Your task to perform on an android device: Empty the shopping cart on target.com. Add "macbook pro 13 inch" to the cart on target.com, then select checkout. Image 0: 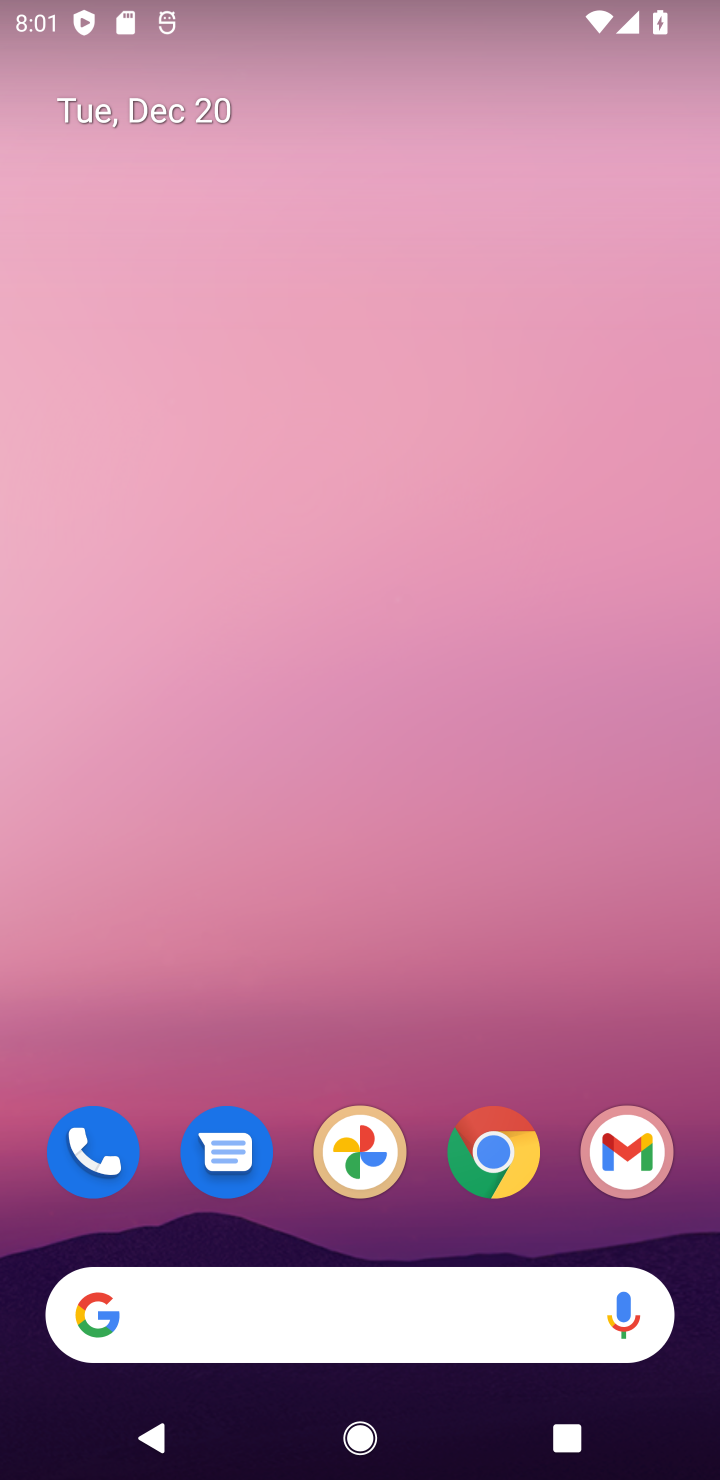
Step 0: click (488, 1119)
Your task to perform on an android device: Empty the shopping cart on target.com. Add "macbook pro 13 inch" to the cart on target.com, then select checkout. Image 1: 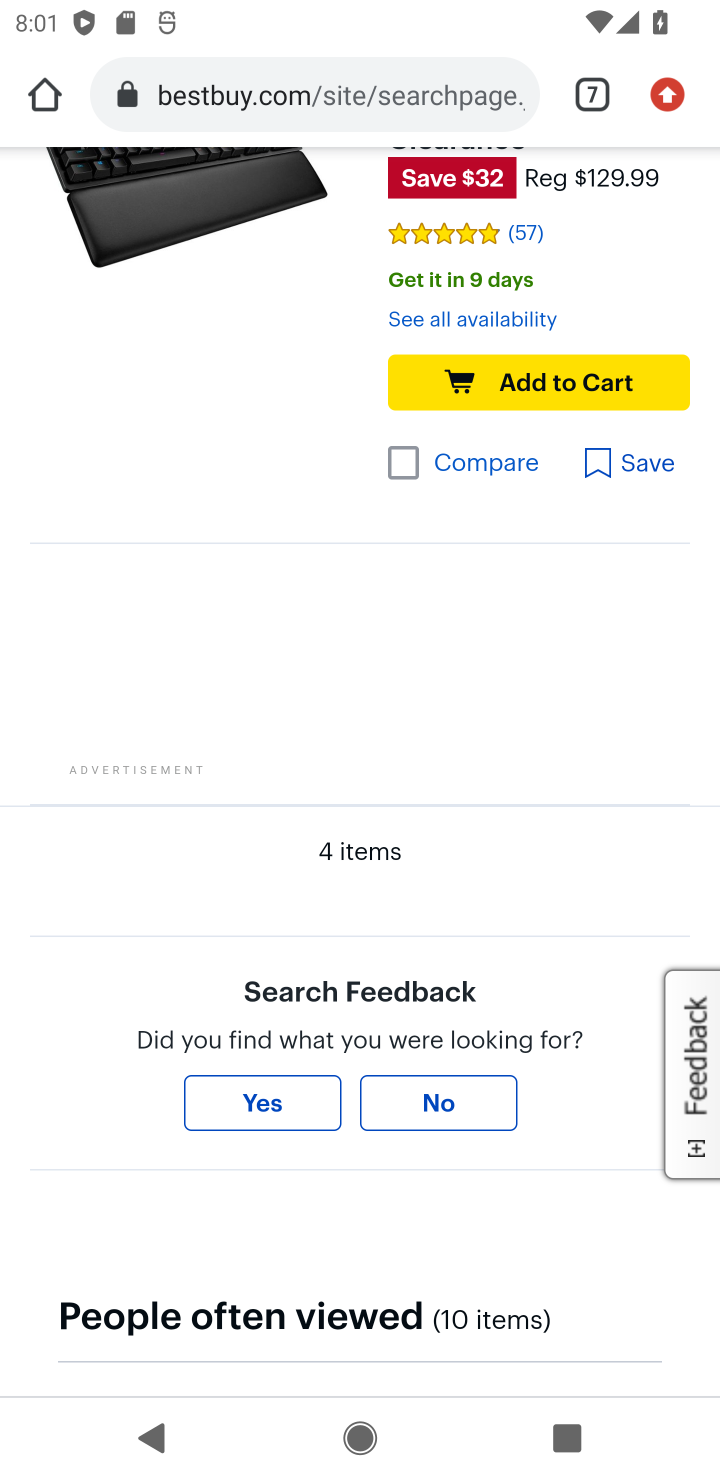
Step 1: click (588, 95)
Your task to perform on an android device: Empty the shopping cart on target.com. Add "macbook pro 13 inch" to the cart on target.com, then select checkout. Image 2: 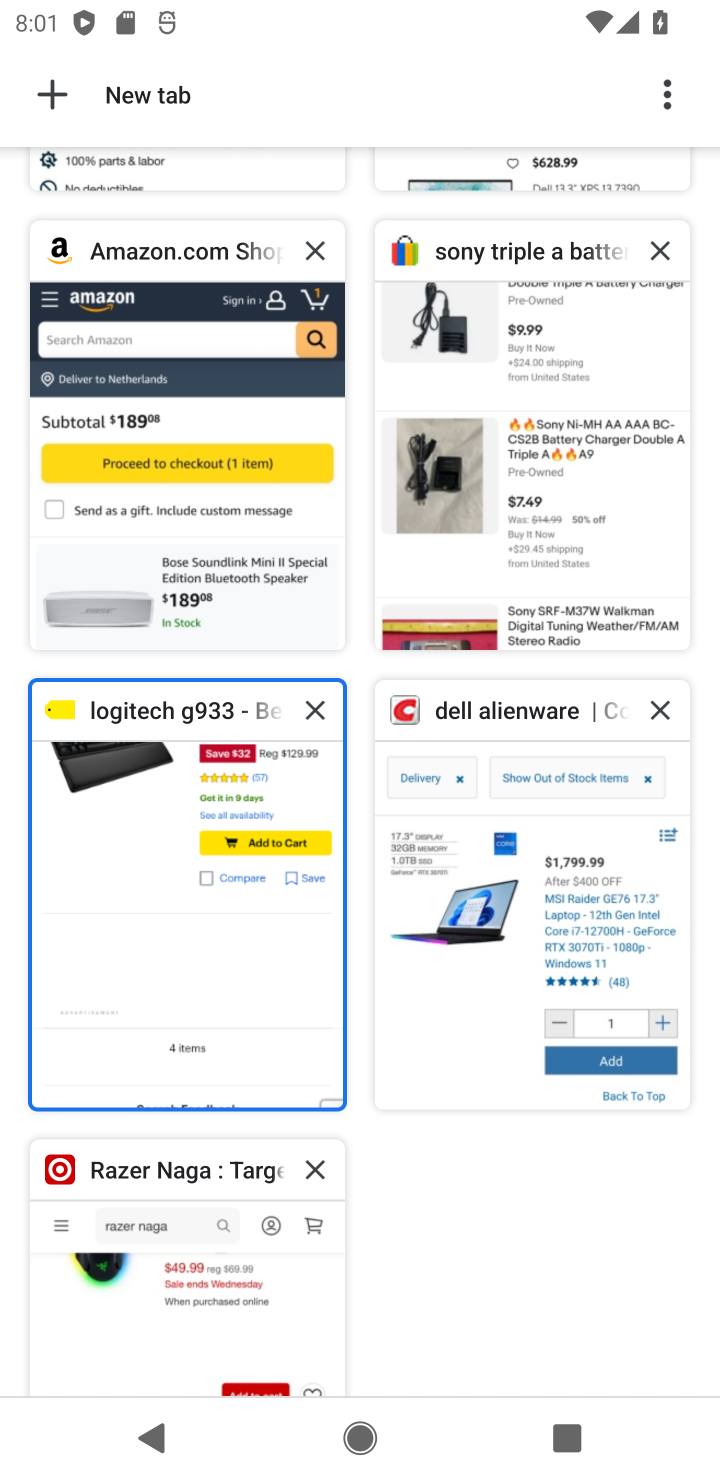
Step 2: click (127, 1263)
Your task to perform on an android device: Empty the shopping cart on target.com. Add "macbook pro 13 inch" to the cart on target.com, then select checkout. Image 3: 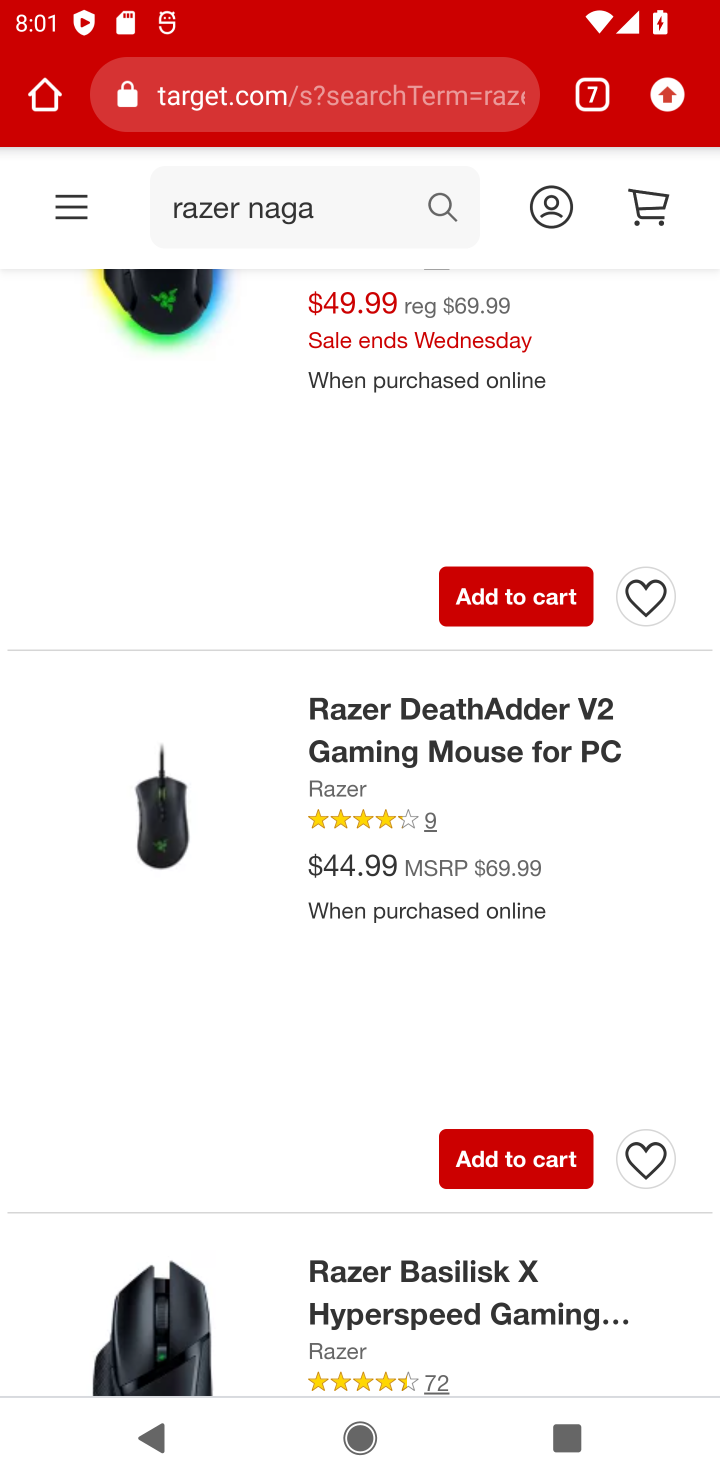
Step 3: click (649, 210)
Your task to perform on an android device: Empty the shopping cart on target.com. Add "macbook pro 13 inch" to the cart on target.com, then select checkout. Image 4: 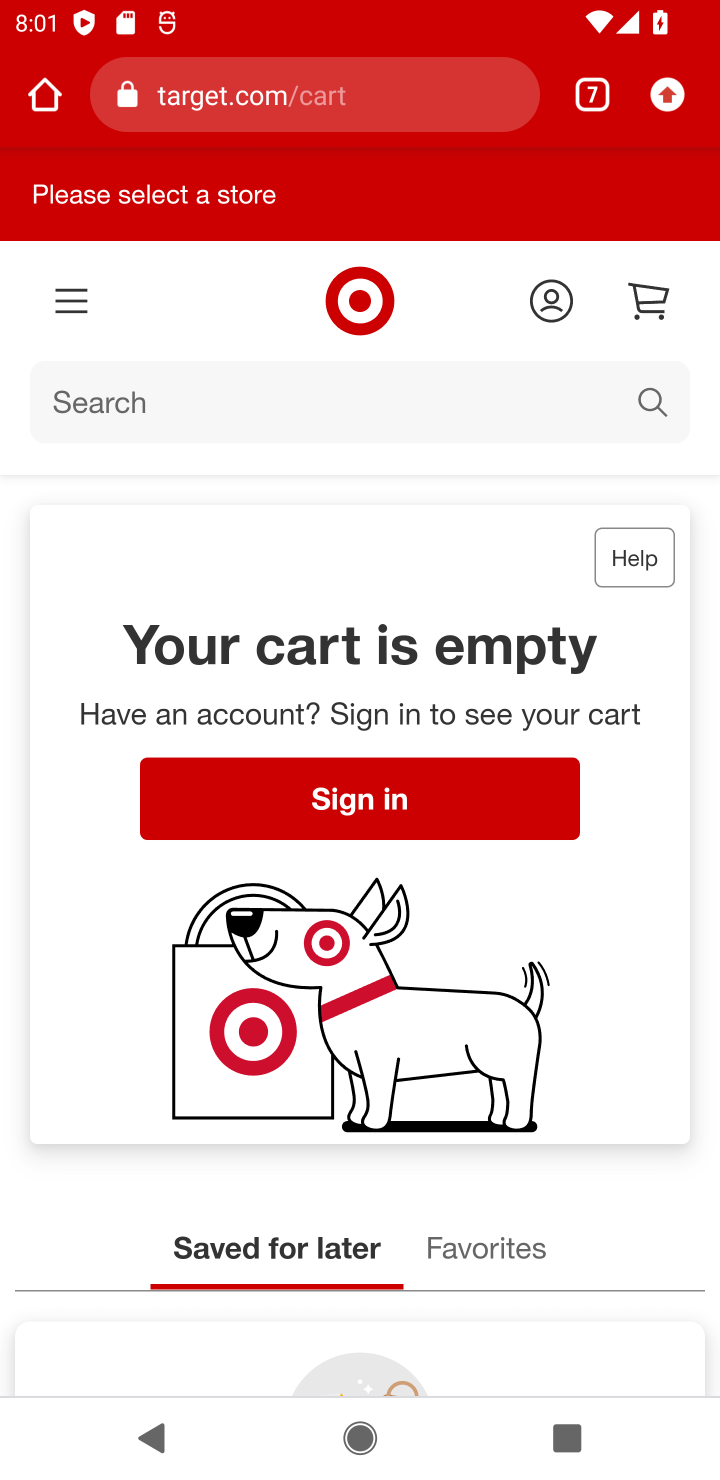
Step 4: click (228, 396)
Your task to perform on an android device: Empty the shopping cart on target.com. Add "macbook pro 13 inch" to the cart on target.com, then select checkout. Image 5: 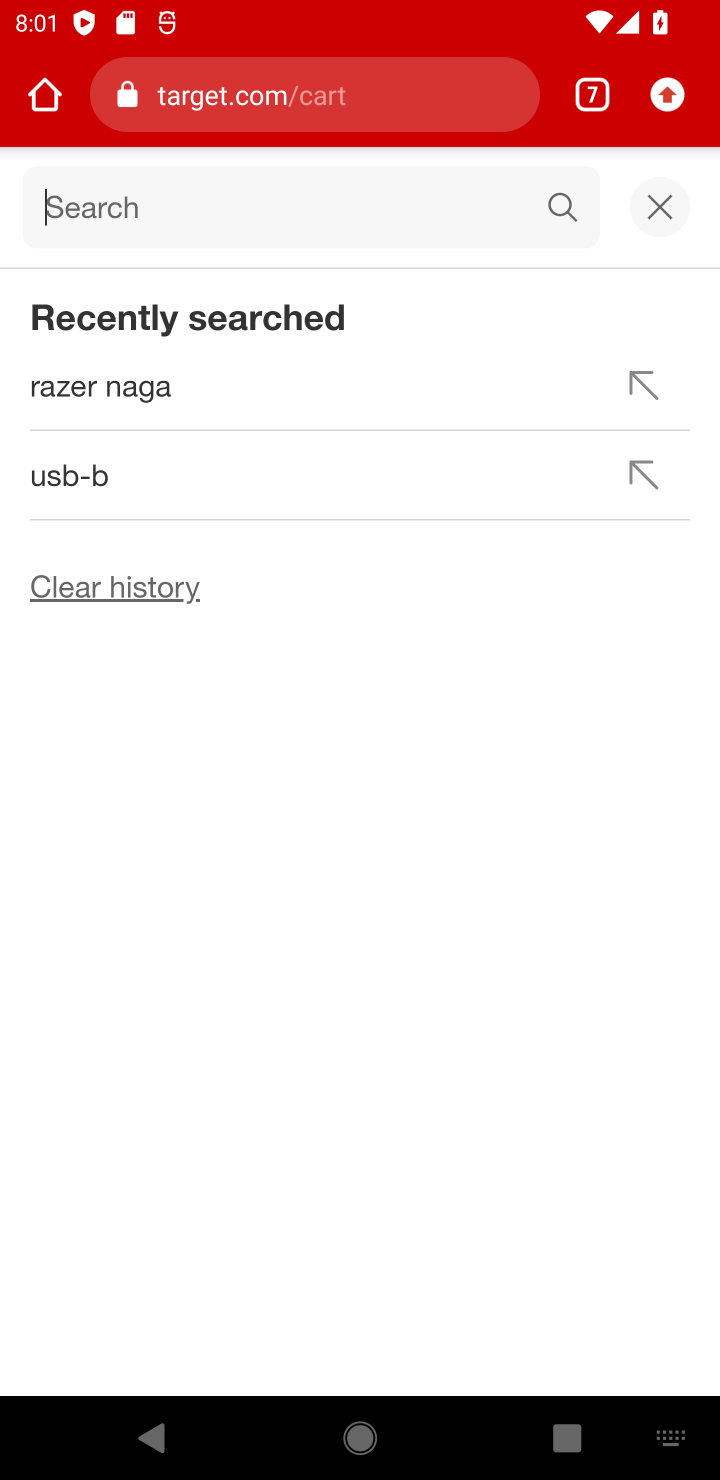
Step 5: type "macbook pro 13 inch"
Your task to perform on an android device: Empty the shopping cart on target.com. Add "macbook pro 13 inch" to the cart on target.com, then select checkout. Image 6: 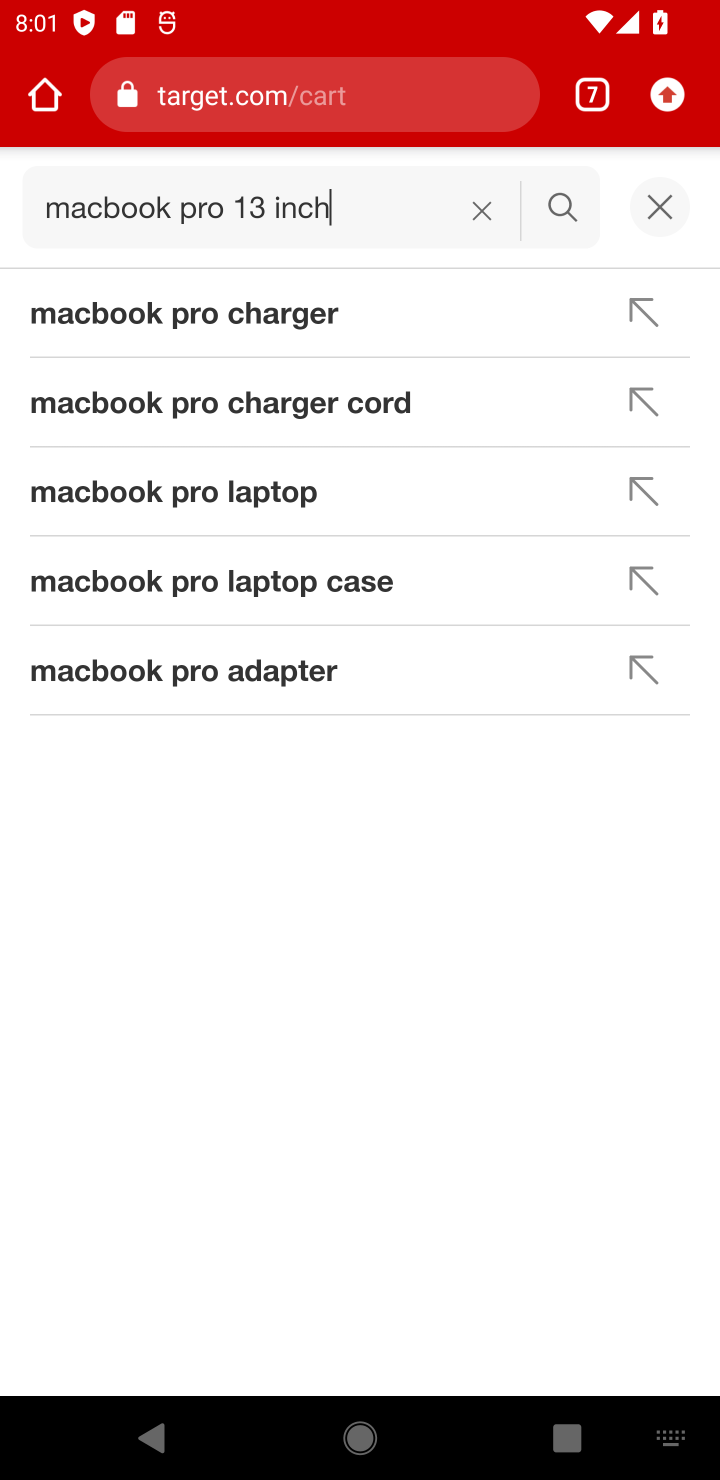
Step 6: click (554, 209)
Your task to perform on an android device: Empty the shopping cart on target.com. Add "macbook pro 13 inch" to the cart on target.com, then select checkout. Image 7: 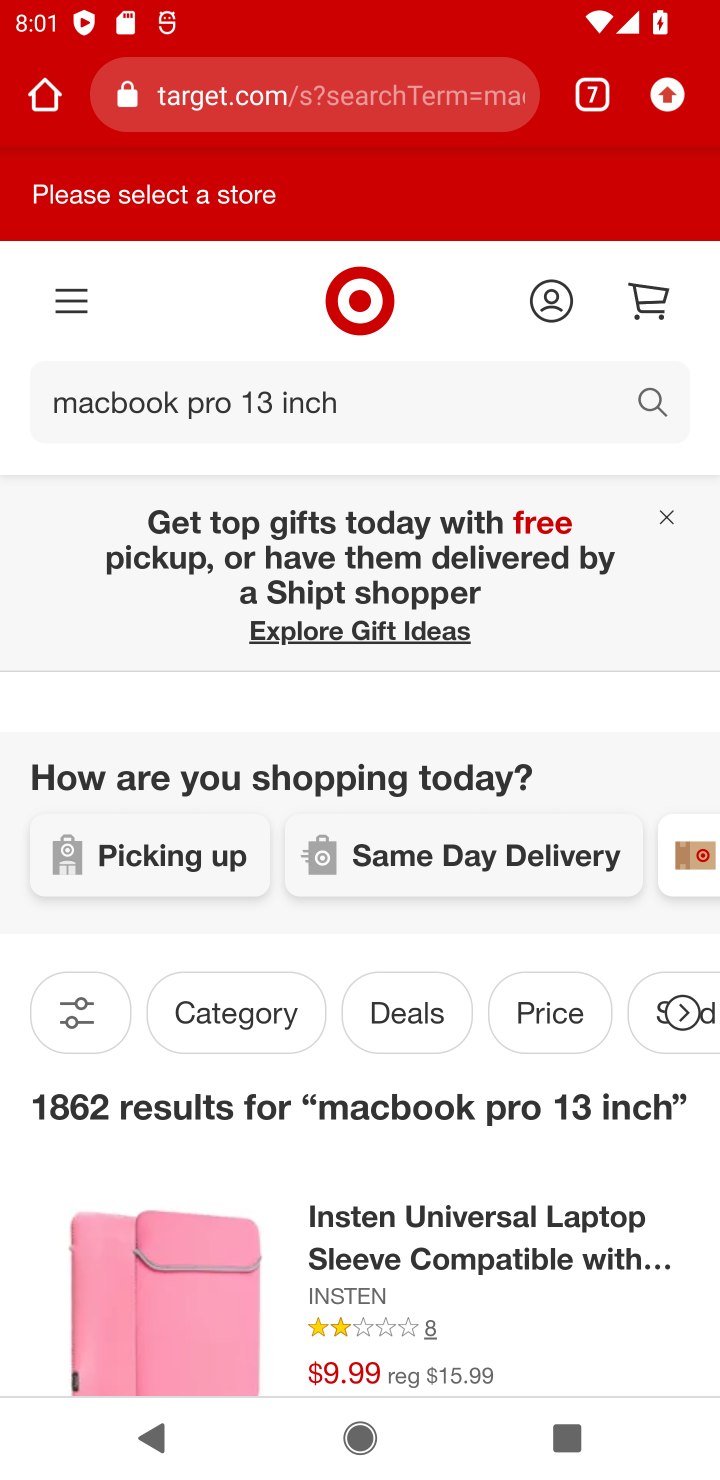
Step 7: task complete